Your task to perform on an android device: Open notification settings Image 0: 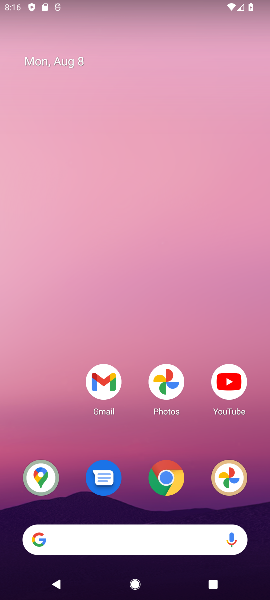
Step 0: drag from (142, 537) to (212, 204)
Your task to perform on an android device: Open notification settings Image 1: 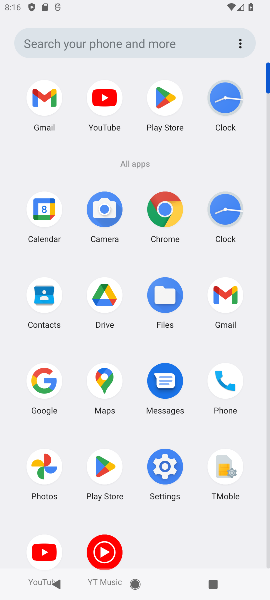
Step 1: click (168, 462)
Your task to perform on an android device: Open notification settings Image 2: 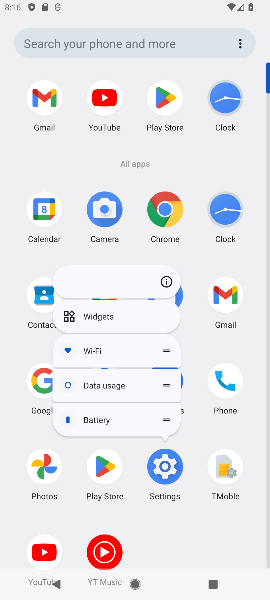
Step 2: click (163, 471)
Your task to perform on an android device: Open notification settings Image 3: 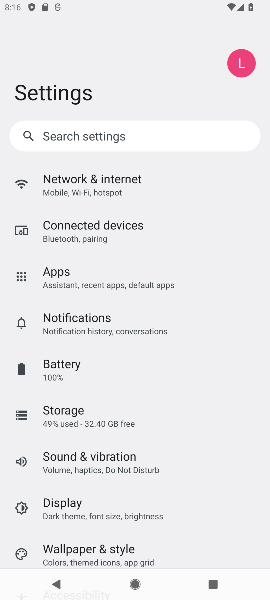
Step 3: click (102, 319)
Your task to perform on an android device: Open notification settings Image 4: 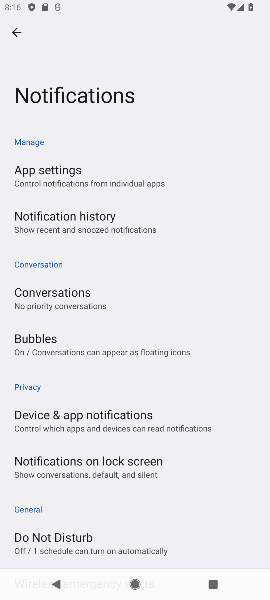
Step 4: task complete